Your task to perform on an android device: turn on priority inbox in the gmail app Image 0: 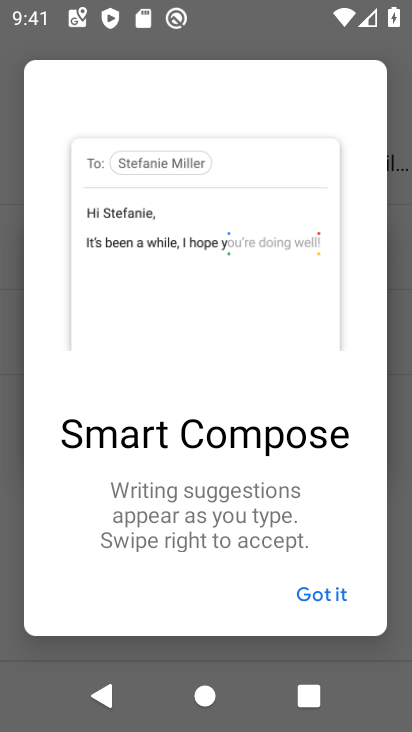
Step 0: press home button
Your task to perform on an android device: turn on priority inbox in the gmail app Image 1: 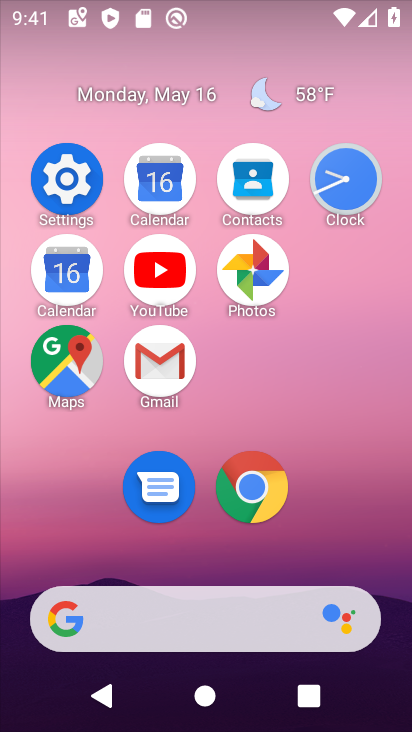
Step 1: click (145, 349)
Your task to perform on an android device: turn on priority inbox in the gmail app Image 2: 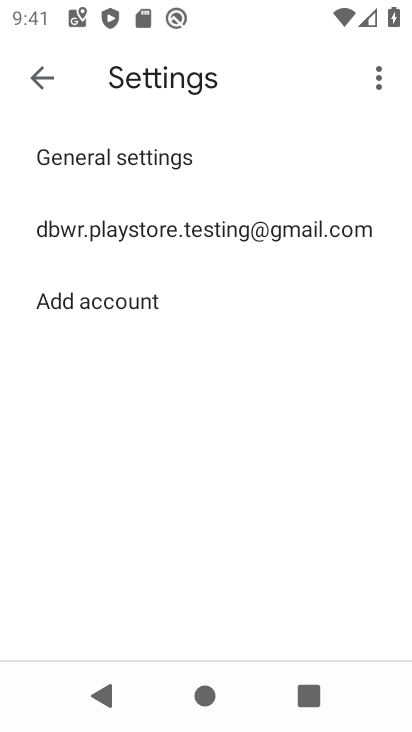
Step 2: click (112, 233)
Your task to perform on an android device: turn on priority inbox in the gmail app Image 3: 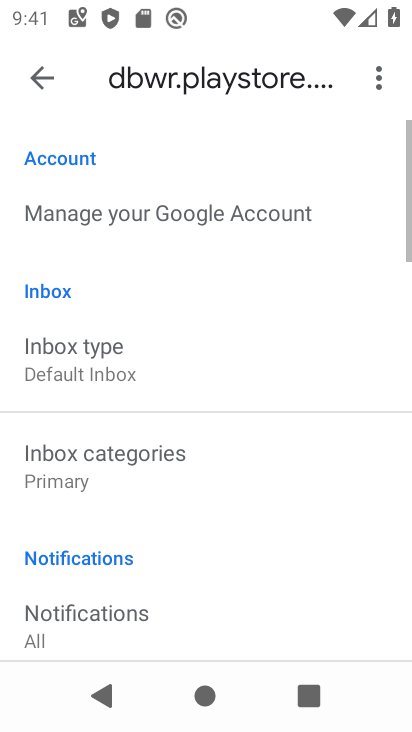
Step 3: click (89, 335)
Your task to perform on an android device: turn on priority inbox in the gmail app Image 4: 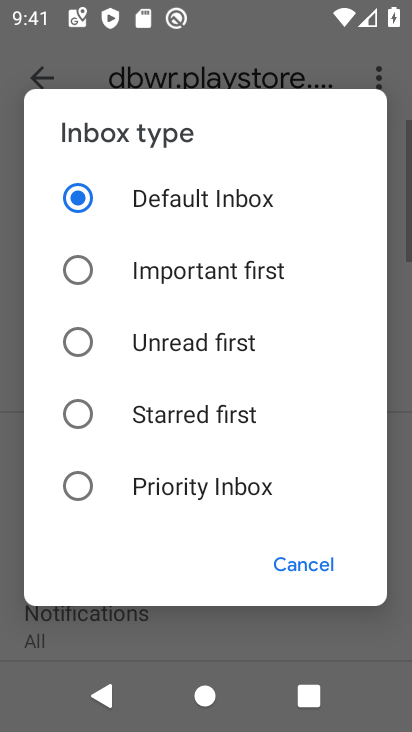
Step 4: click (130, 477)
Your task to perform on an android device: turn on priority inbox in the gmail app Image 5: 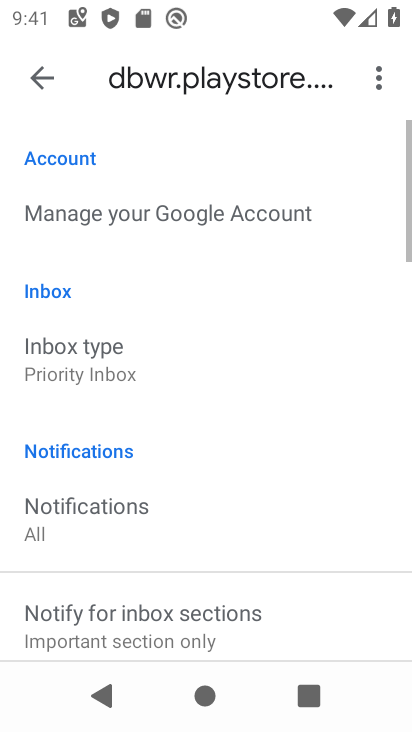
Step 5: task complete